Your task to perform on an android device: turn off location history Image 0: 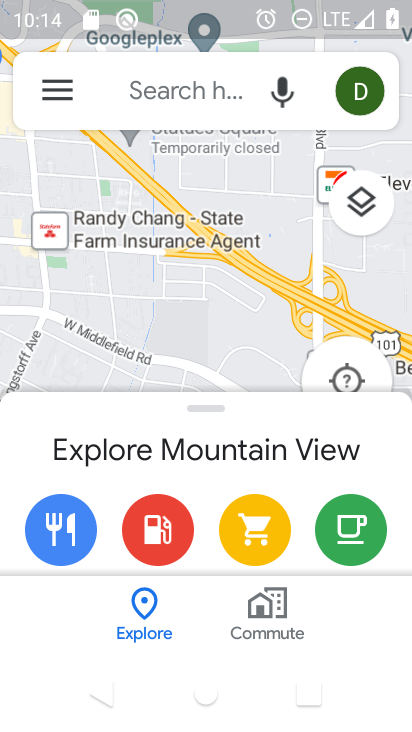
Step 0: click (178, 95)
Your task to perform on an android device: turn off location history Image 1: 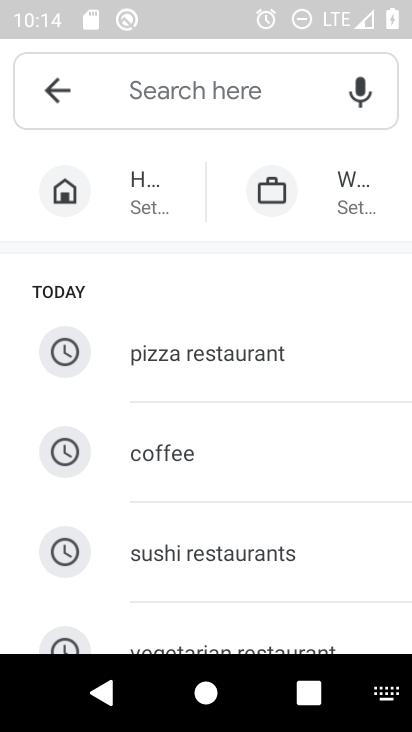
Step 1: click (56, 102)
Your task to perform on an android device: turn off location history Image 2: 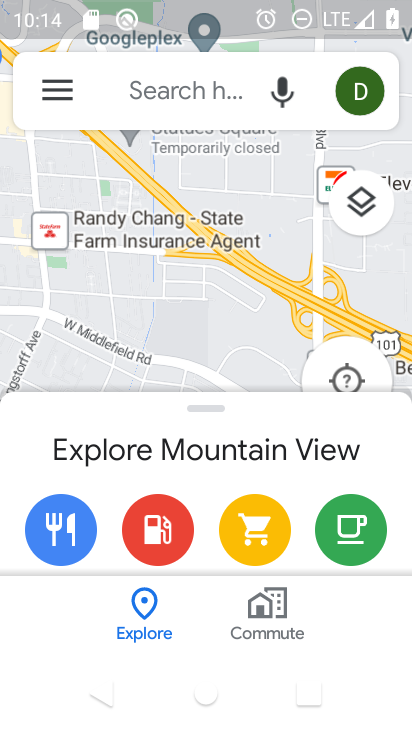
Step 2: click (56, 102)
Your task to perform on an android device: turn off location history Image 3: 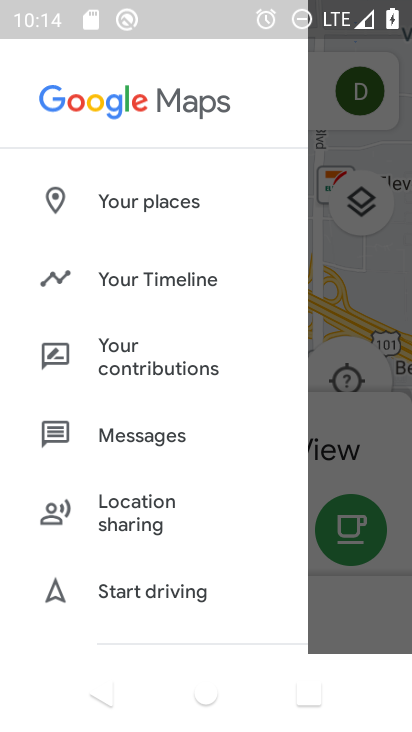
Step 3: drag from (137, 547) to (134, 225)
Your task to perform on an android device: turn off location history Image 4: 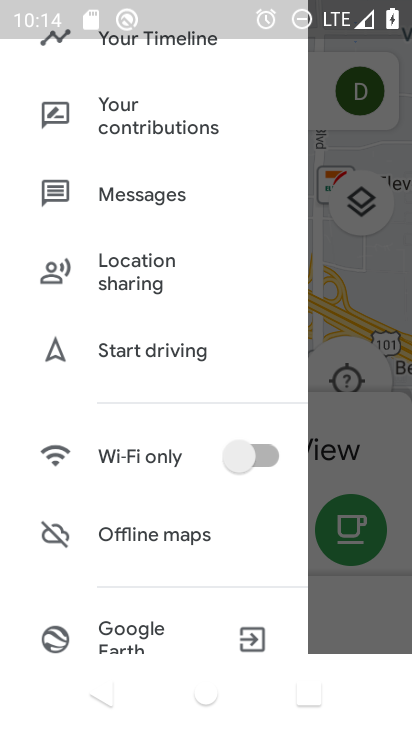
Step 4: drag from (74, 628) to (102, 332)
Your task to perform on an android device: turn off location history Image 5: 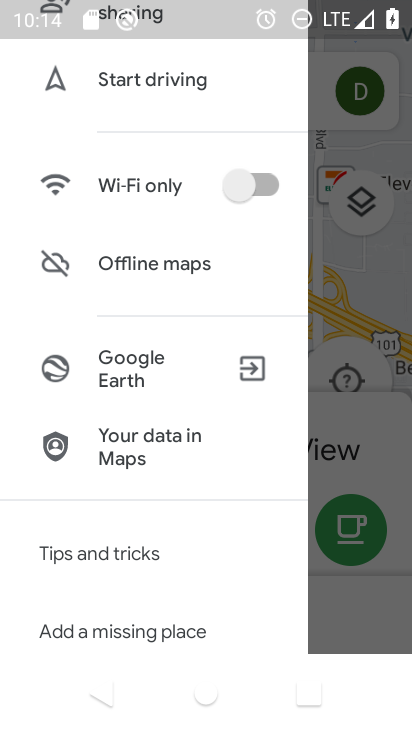
Step 5: drag from (118, 594) to (132, 252)
Your task to perform on an android device: turn off location history Image 6: 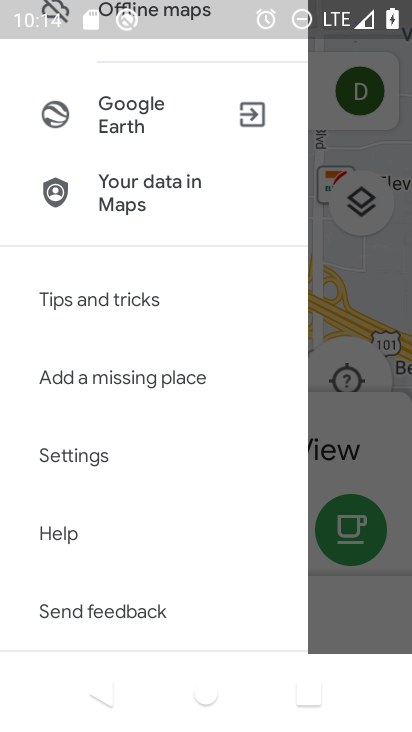
Step 6: click (121, 469)
Your task to perform on an android device: turn off location history Image 7: 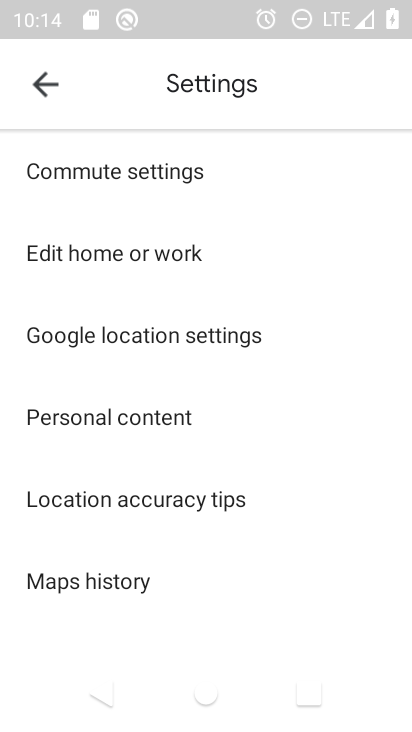
Step 7: click (133, 584)
Your task to perform on an android device: turn off location history Image 8: 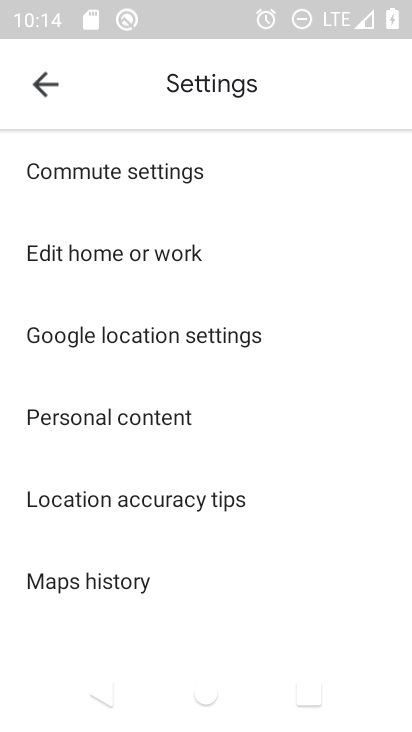
Step 8: click (208, 338)
Your task to perform on an android device: turn off location history Image 9: 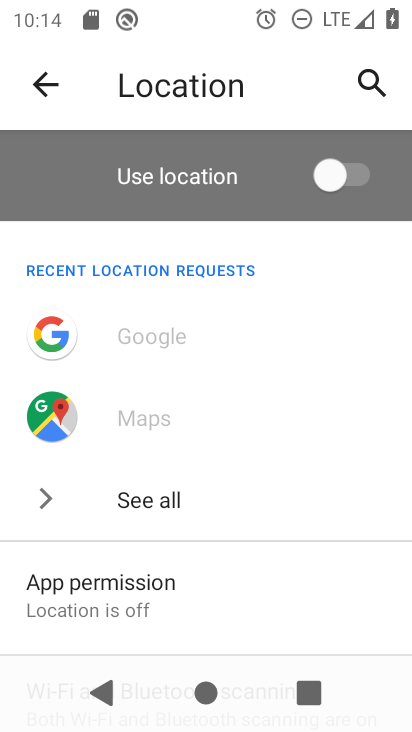
Step 9: drag from (133, 591) to (155, 299)
Your task to perform on an android device: turn off location history Image 10: 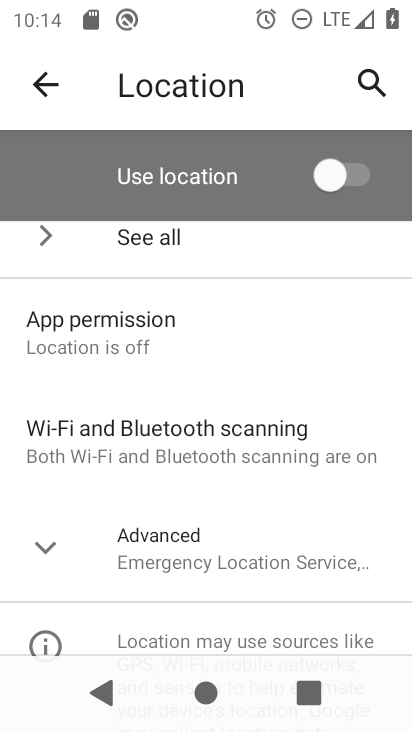
Step 10: click (183, 531)
Your task to perform on an android device: turn off location history Image 11: 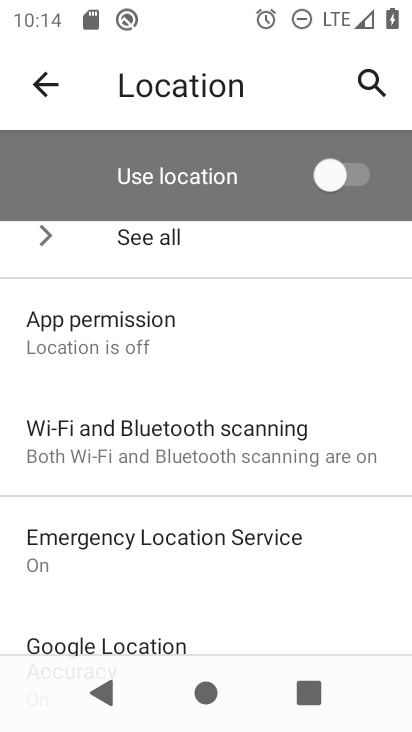
Step 11: drag from (184, 586) to (250, 127)
Your task to perform on an android device: turn off location history Image 12: 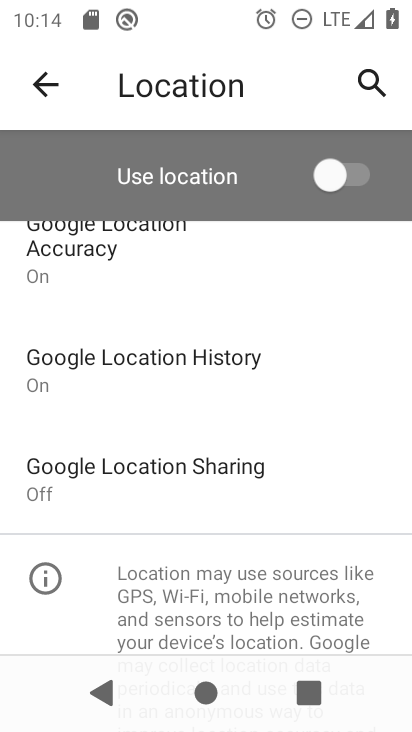
Step 12: click (186, 336)
Your task to perform on an android device: turn off location history Image 13: 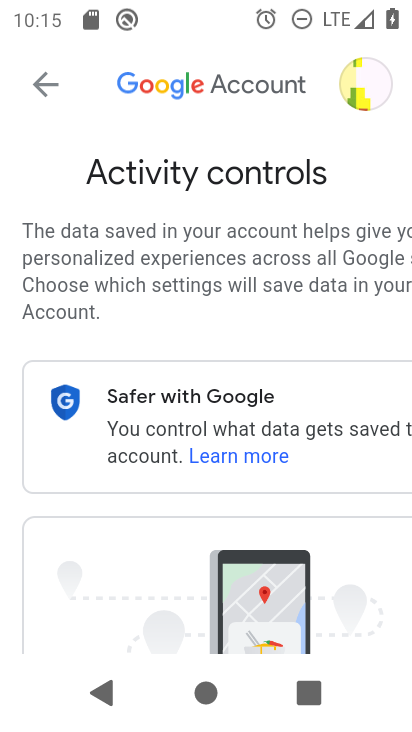
Step 13: drag from (127, 533) to (187, 17)
Your task to perform on an android device: turn off location history Image 14: 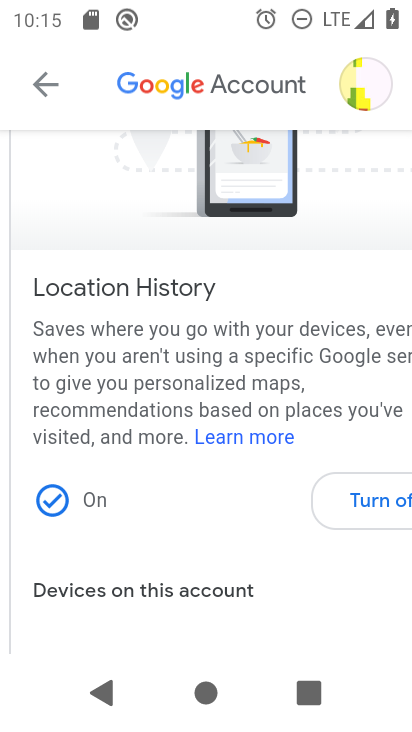
Step 14: click (367, 508)
Your task to perform on an android device: turn off location history Image 15: 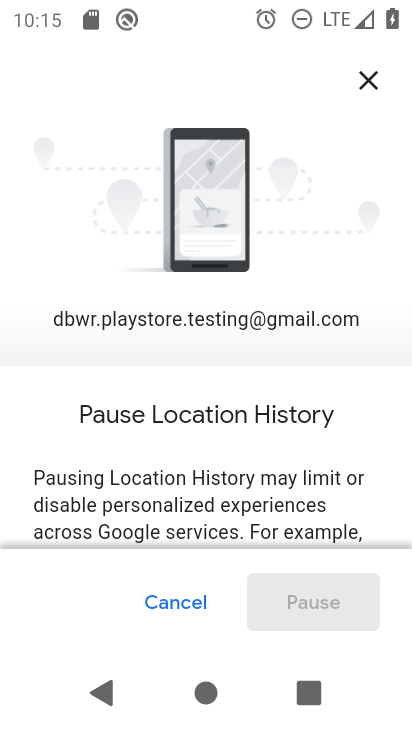
Step 15: drag from (145, 499) to (212, 53)
Your task to perform on an android device: turn off location history Image 16: 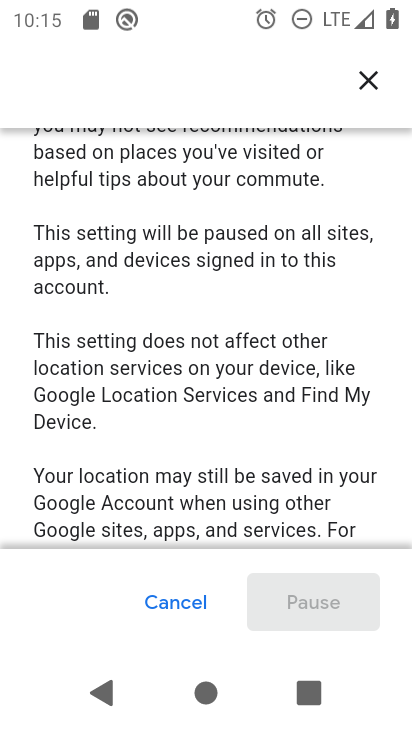
Step 16: drag from (155, 501) to (207, 102)
Your task to perform on an android device: turn off location history Image 17: 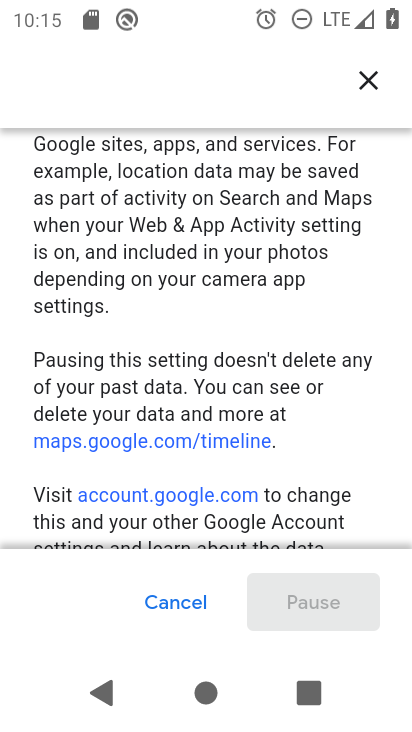
Step 17: drag from (119, 521) to (177, 146)
Your task to perform on an android device: turn off location history Image 18: 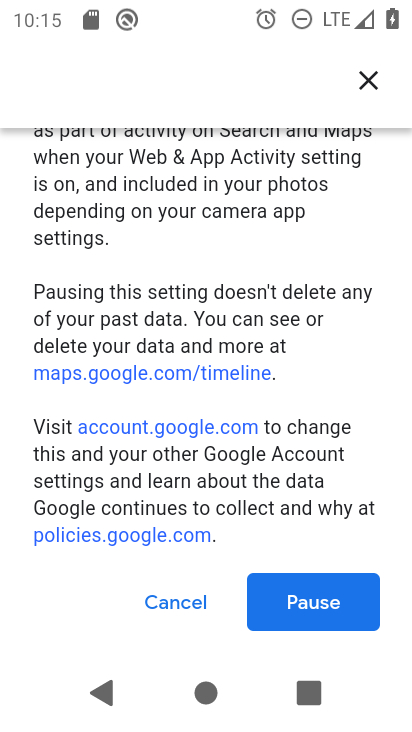
Step 18: click (260, 617)
Your task to perform on an android device: turn off location history Image 19: 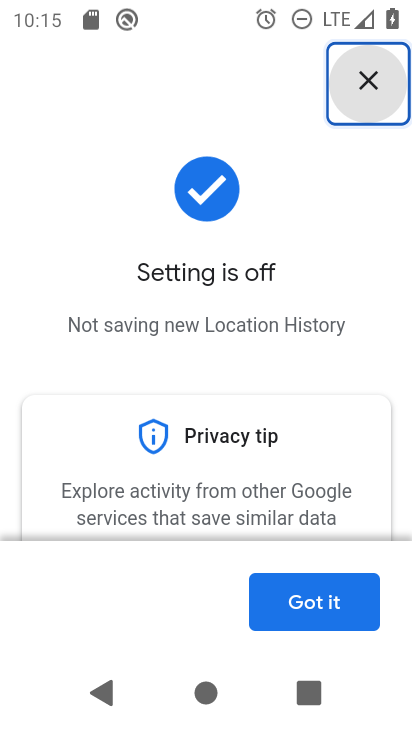
Step 19: click (260, 617)
Your task to perform on an android device: turn off location history Image 20: 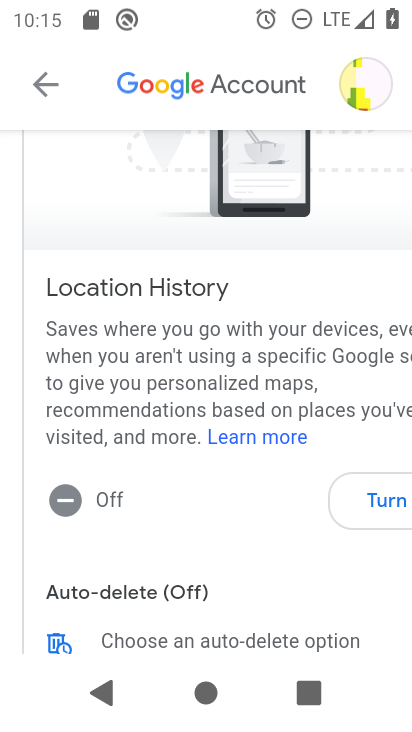
Step 20: task complete